Your task to perform on an android device: Open location settings Image 0: 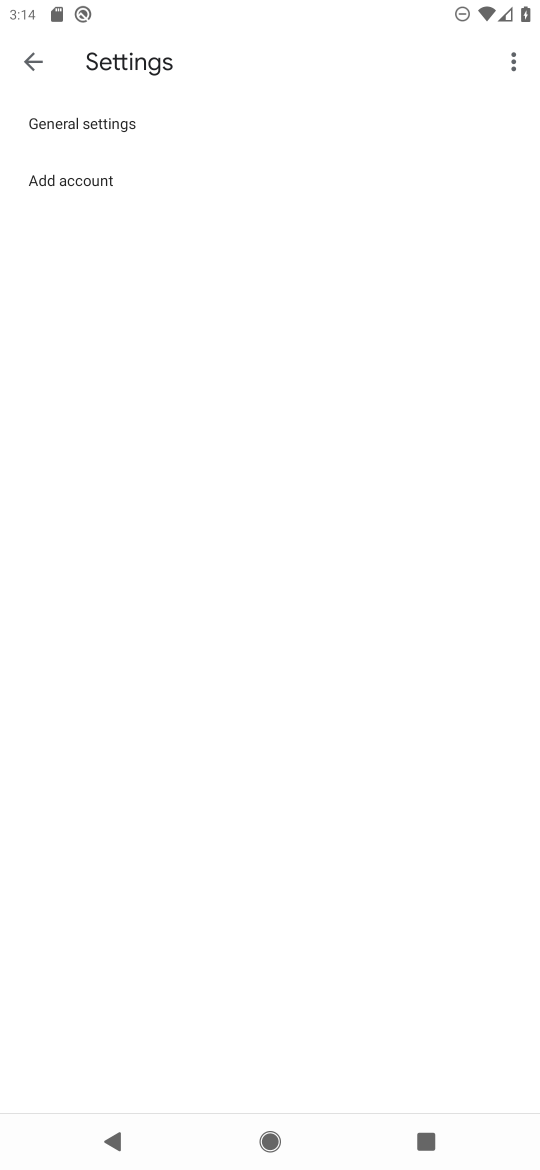
Step 0: press home button
Your task to perform on an android device: Open location settings Image 1: 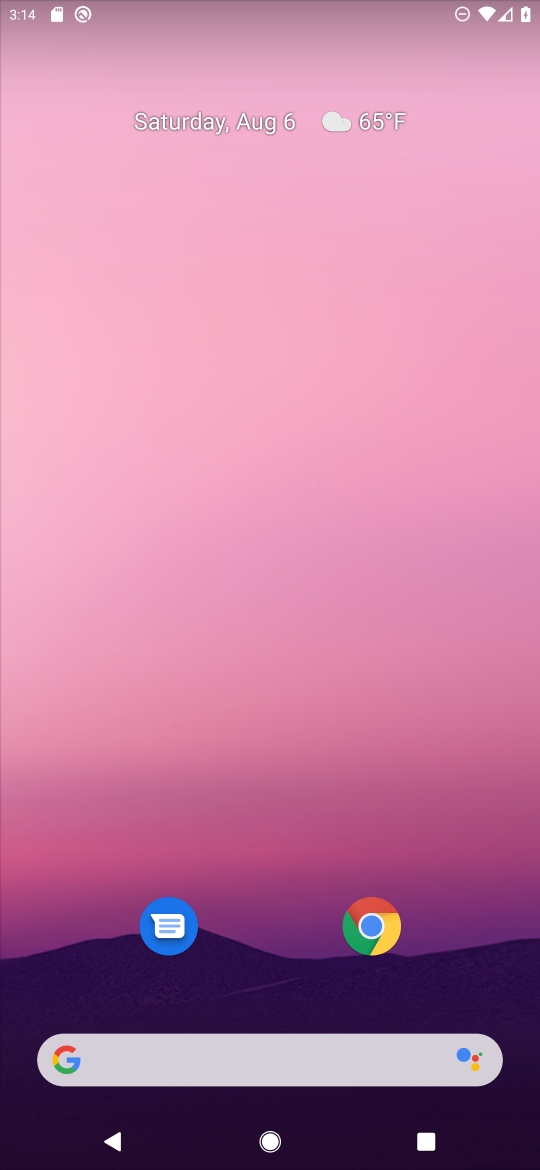
Step 1: drag from (260, 929) to (277, 198)
Your task to perform on an android device: Open location settings Image 2: 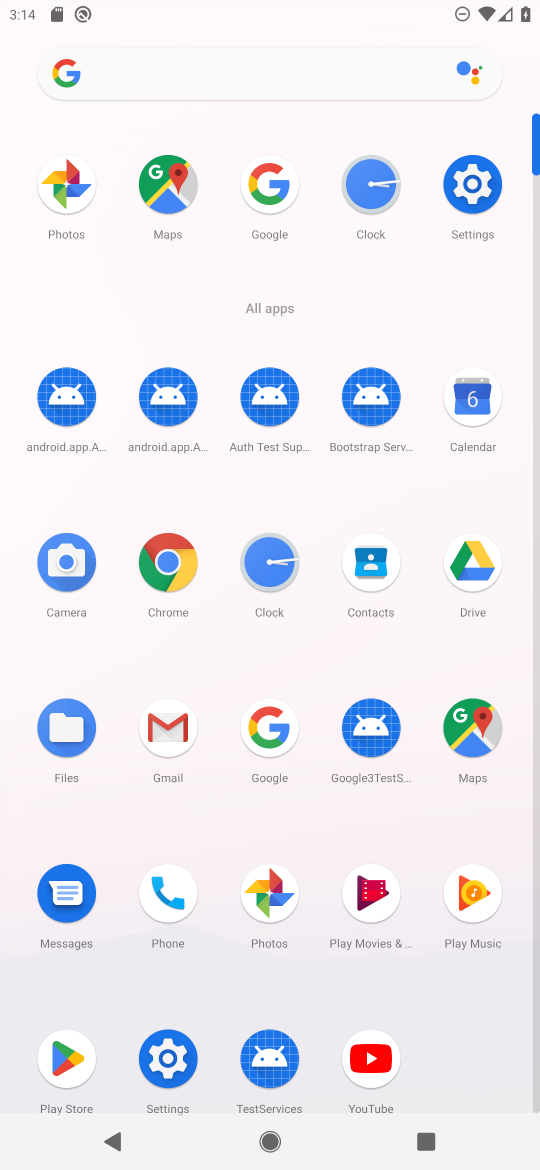
Step 2: click (443, 196)
Your task to perform on an android device: Open location settings Image 3: 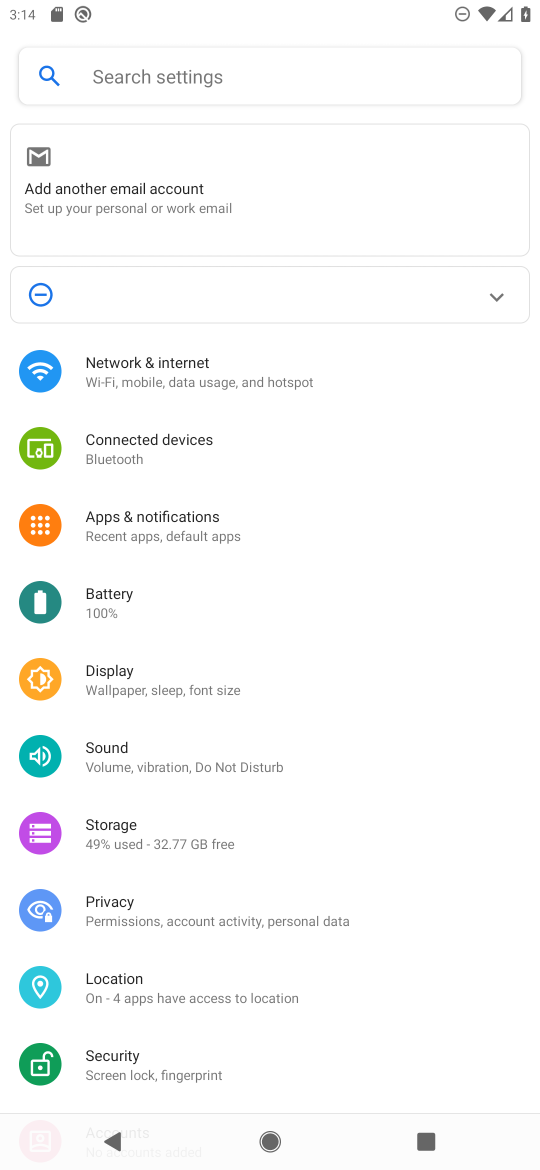
Step 3: click (191, 1006)
Your task to perform on an android device: Open location settings Image 4: 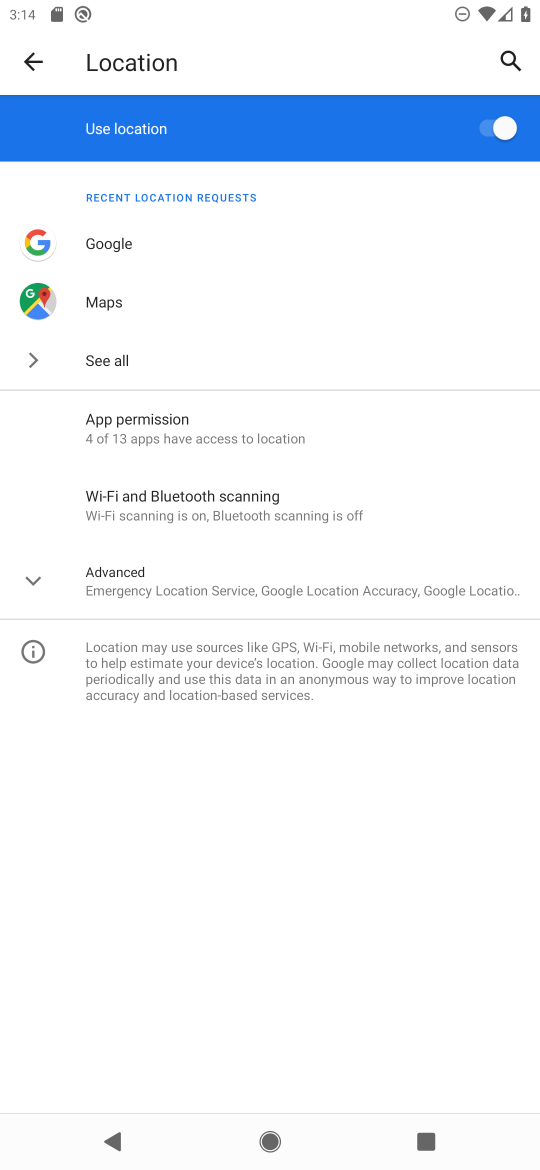
Step 4: task complete